Your task to perform on an android device: set the stopwatch Image 0: 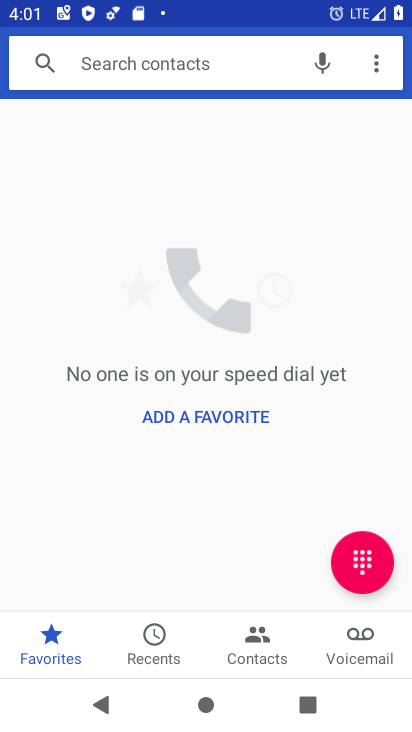
Step 0: press back button
Your task to perform on an android device: set the stopwatch Image 1: 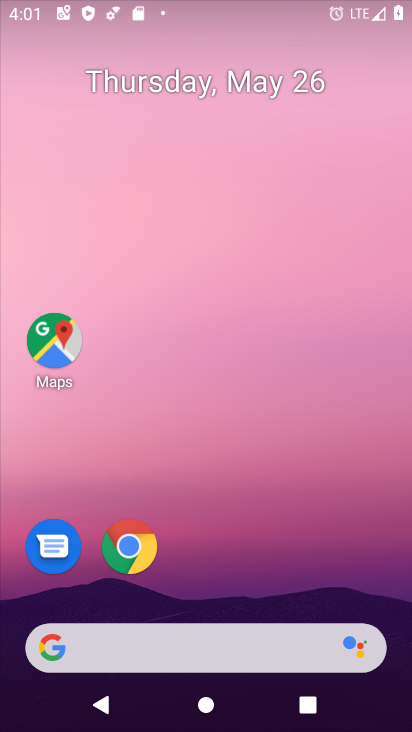
Step 1: drag from (308, 559) to (296, 61)
Your task to perform on an android device: set the stopwatch Image 2: 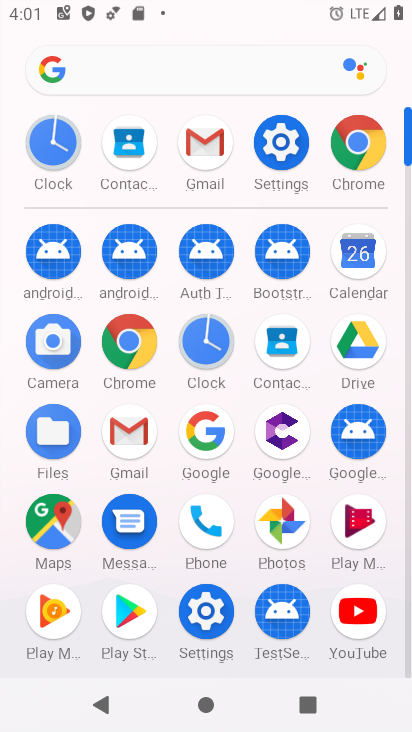
Step 2: click (280, 140)
Your task to perform on an android device: set the stopwatch Image 3: 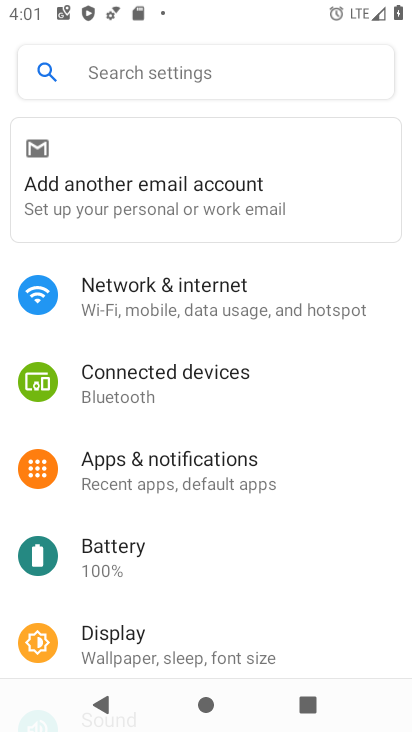
Step 3: press back button
Your task to perform on an android device: set the stopwatch Image 4: 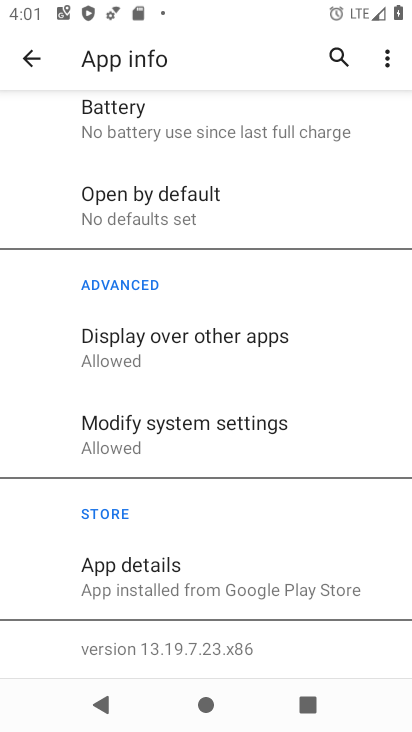
Step 4: press home button
Your task to perform on an android device: set the stopwatch Image 5: 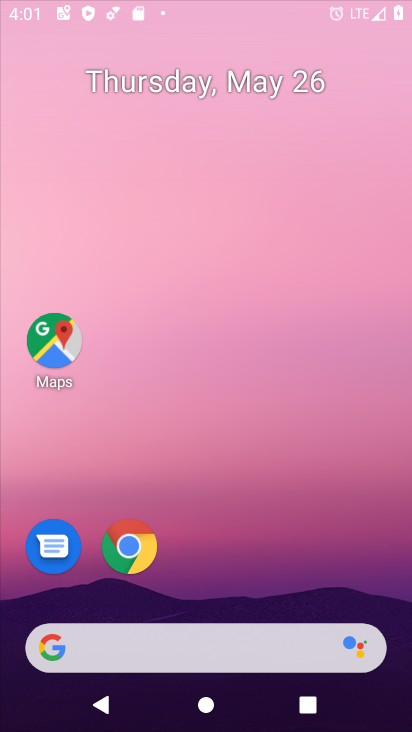
Step 5: drag from (284, 93) to (272, 2)
Your task to perform on an android device: set the stopwatch Image 6: 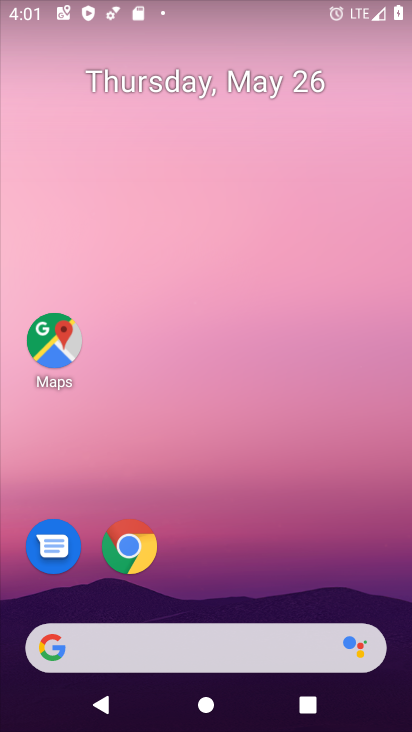
Step 6: drag from (198, 544) to (288, 14)
Your task to perform on an android device: set the stopwatch Image 7: 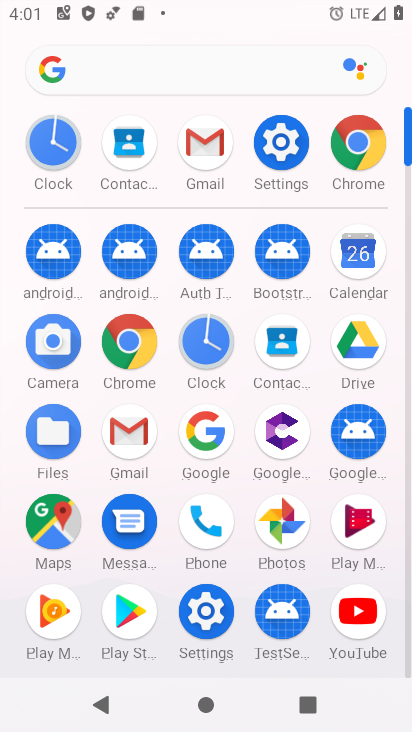
Step 7: click (199, 339)
Your task to perform on an android device: set the stopwatch Image 8: 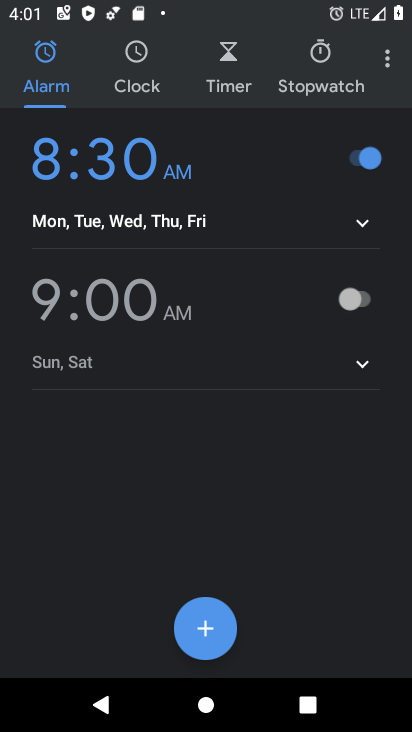
Step 8: click (306, 65)
Your task to perform on an android device: set the stopwatch Image 9: 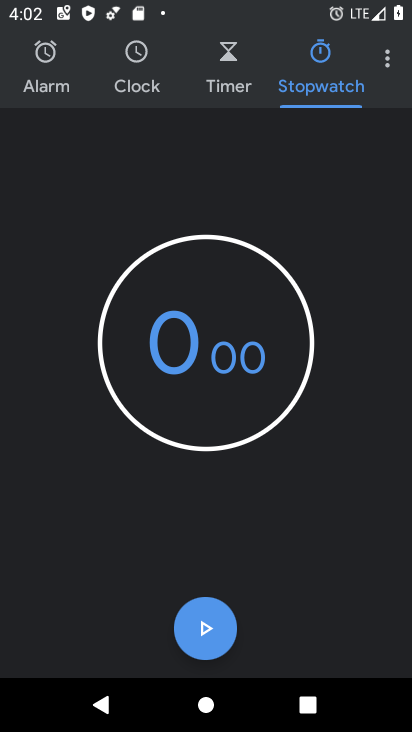
Step 9: task complete